Your task to perform on an android device: Open settings Image 0: 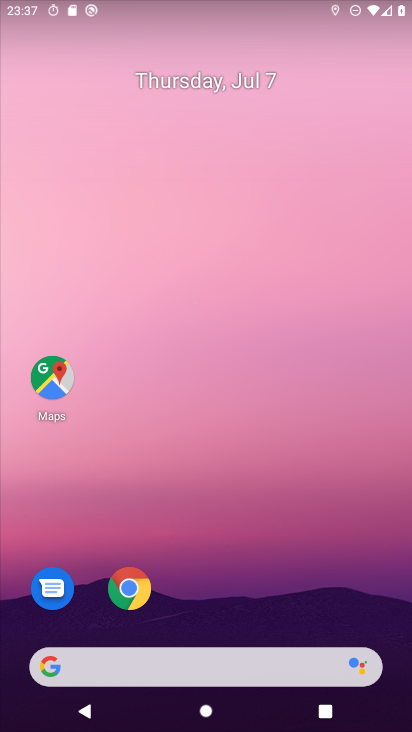
Step 0: drag from (228, 549) to (213, 86)
Your task to perform on an android device: Open settings Image 1: 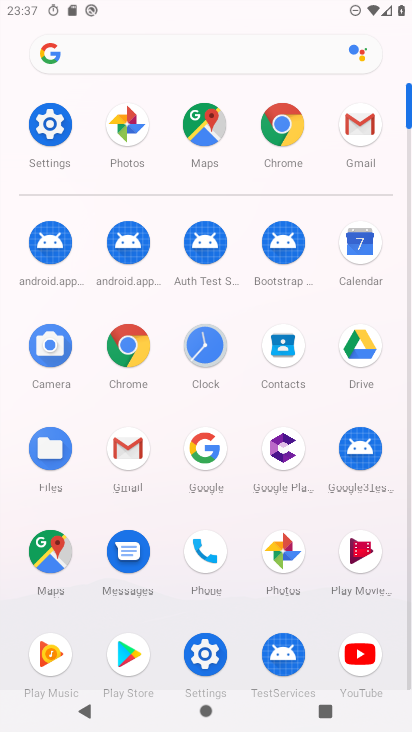
Step 1: click (54, 134)
Your task to perform on an android device: Open settings Image 2: 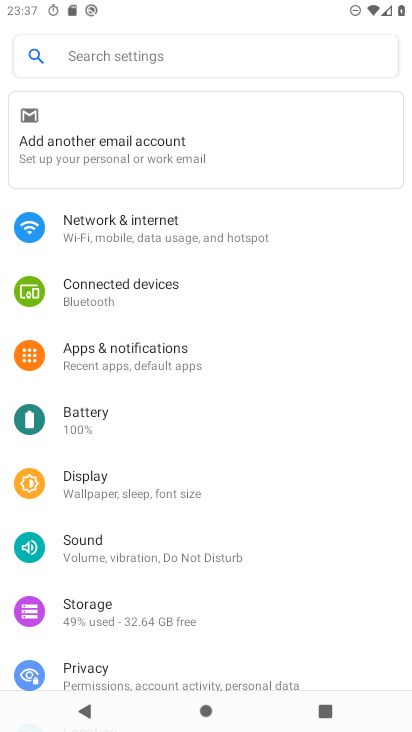
Step 2: task complete